Your task to perform on an android device: allow notifications from all sites in the chrome app Image 0: 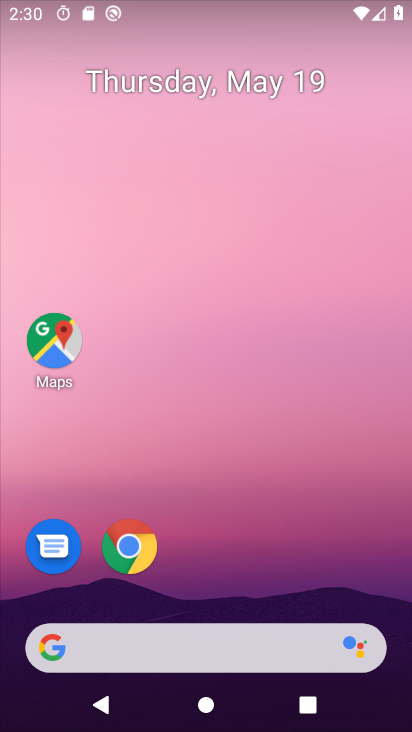
Step 0: click (128, 543)
Your task to perform on an android device: allow notifications from all sites in the chrome app Image 1: 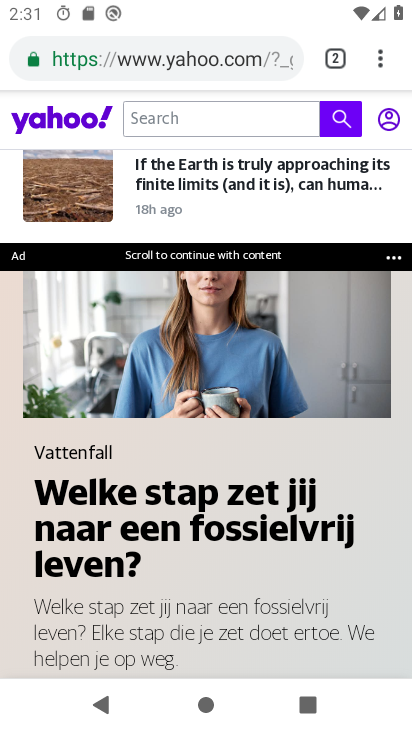
Step 1: click (381, 50)
Your task to perform on an android device: allow notifications from all sites in the chrome app Image 2: 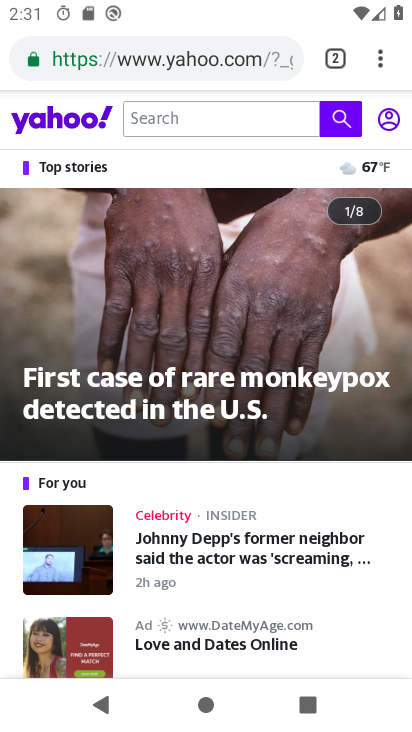
Step 2: click (382, 55)
Your task to perform on an android device: allow notifications from all sites in the chrome app Image 3: 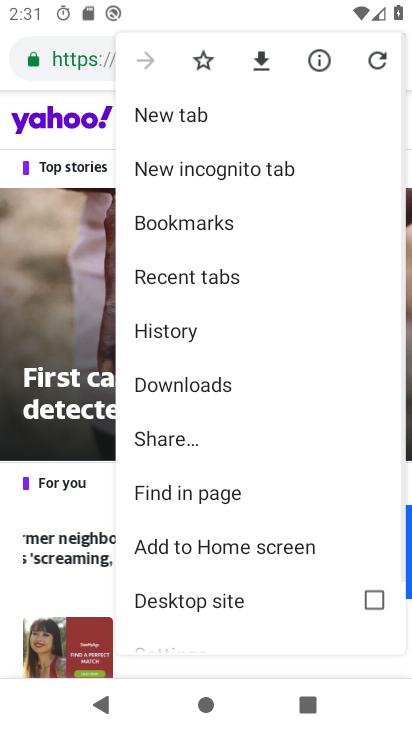
Step 3: drag from (258, 586) to (281, 77)
Your task to perform on an android device: allow notifications from all sites in the chrome app Image 4: 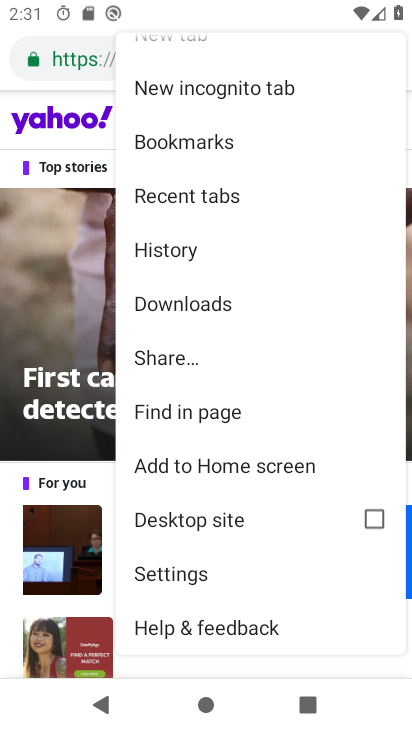
Step 4: click (223, 574)
Your task to perform on an android device: allow notifications from all sites in the chrome app Image 5: 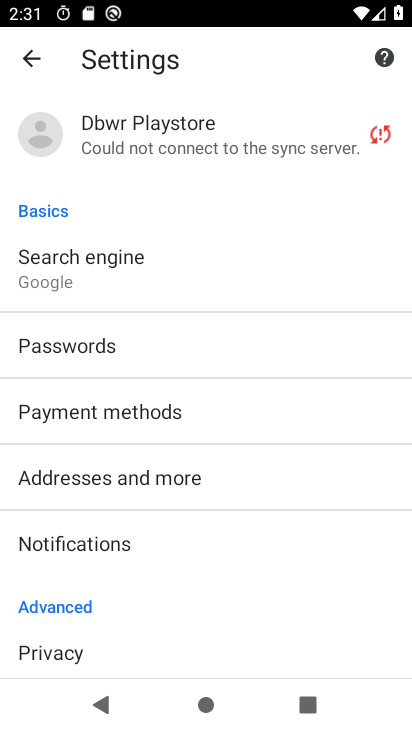
Step 5: drag from (173, 602) to (216, 172)
Your task to perform on an android device: allow notifications from all sites in the chrome app Image 6: 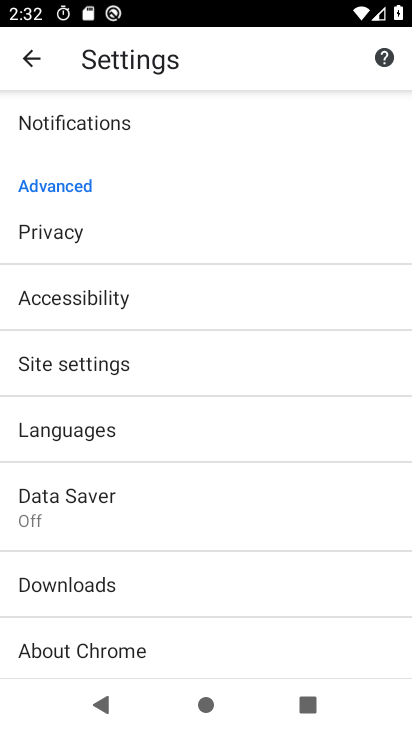
Step 6: click (148, 365)
Your task to perform on an android device: allow notifications from all sites in the chrome app Image 7: 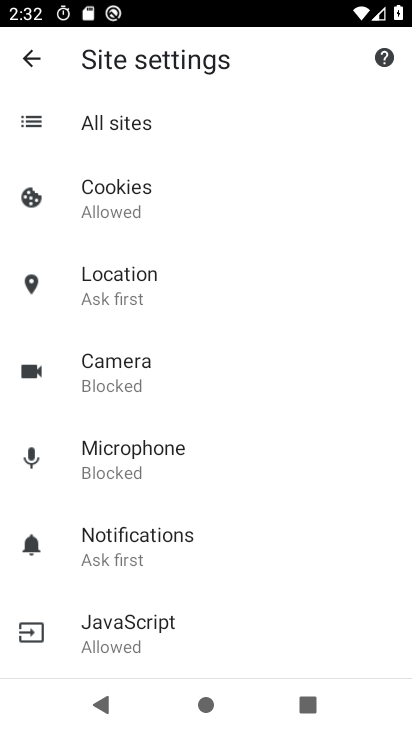
Step 7: click (178, 114)
Your task to perform on an android device: allow notifications from all sites in the chrome app Image 8: 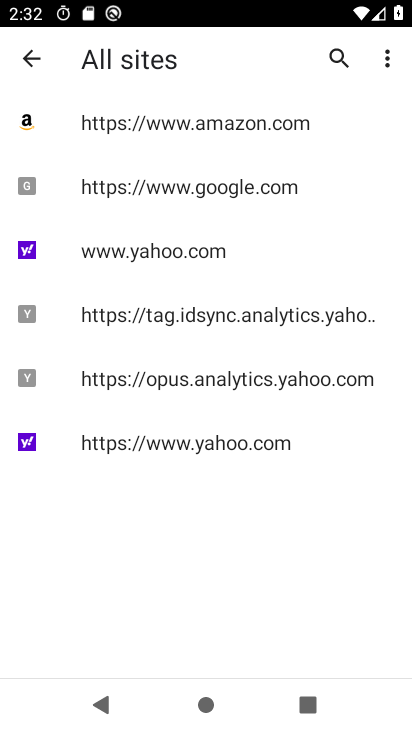
Step 8: click (63, 248)
Your task to perform on an android device: allow notifications from all sites in the chrome app Image 9: 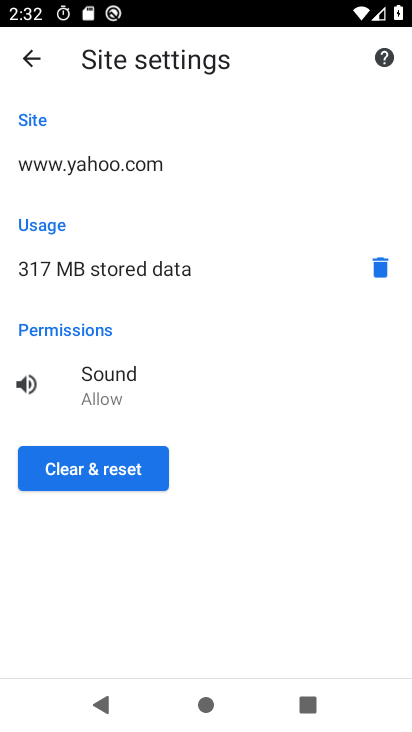
Step 9: click (30, 65)
Your task to perform on an android device: allow notifications from all sites in the chrome app Image 10: 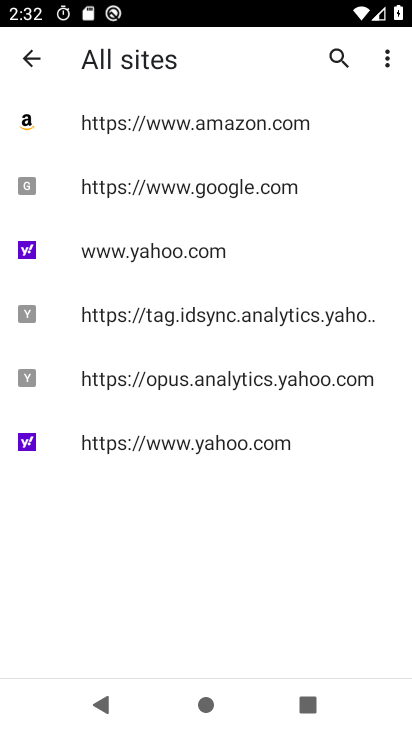
Step 10: click (61, 437)
Your task to perform on an android device: allow notifications from all sites in the chrome app Image 11: 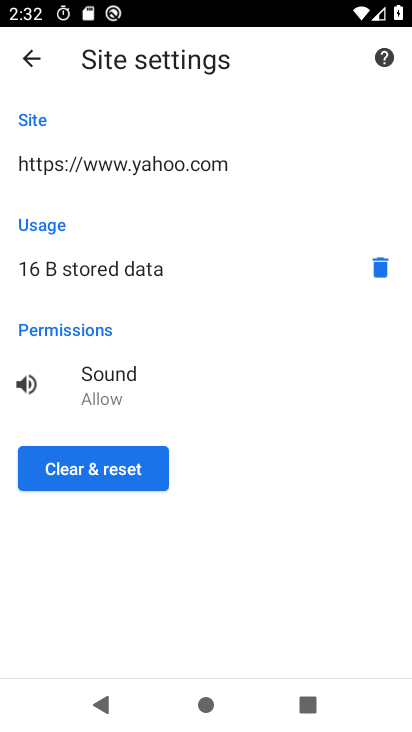
Step 11: click (24, 64)
Your task to perform on an android device: allow notifications from all sites in the chrome app Image 12: 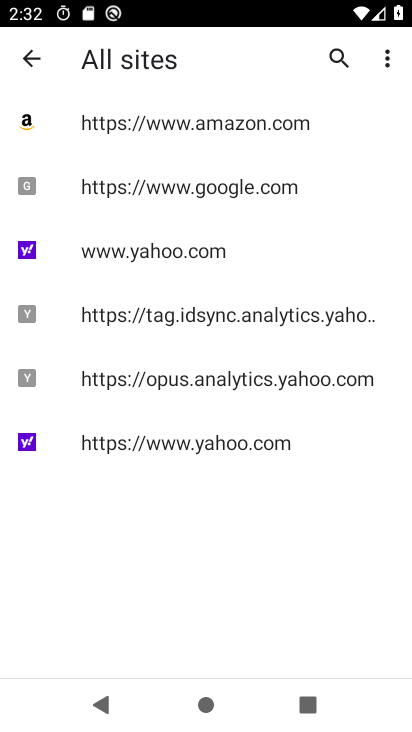
Step 12: click (64, 184)
Your task to perform on an android device: allow notifications from all sites in the chrome app Image 13: 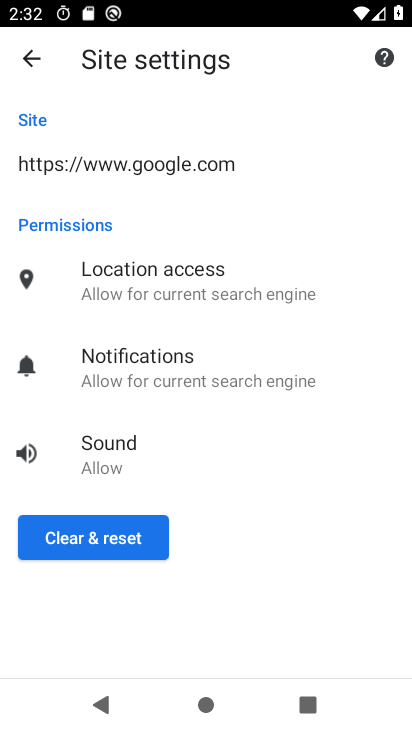
Step 13: task complete